Your task to perform on an android device: set the stopwatch Image 0: 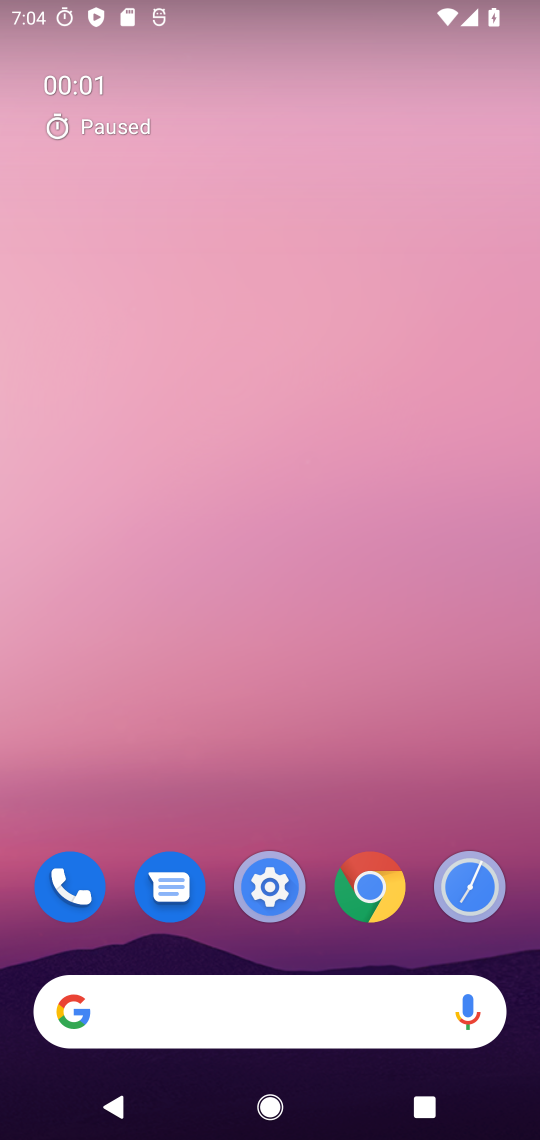
Step 0: drag from (354, 844) to (279, 299)
Your task to perform on an android device: set the stopwatch Image 1: 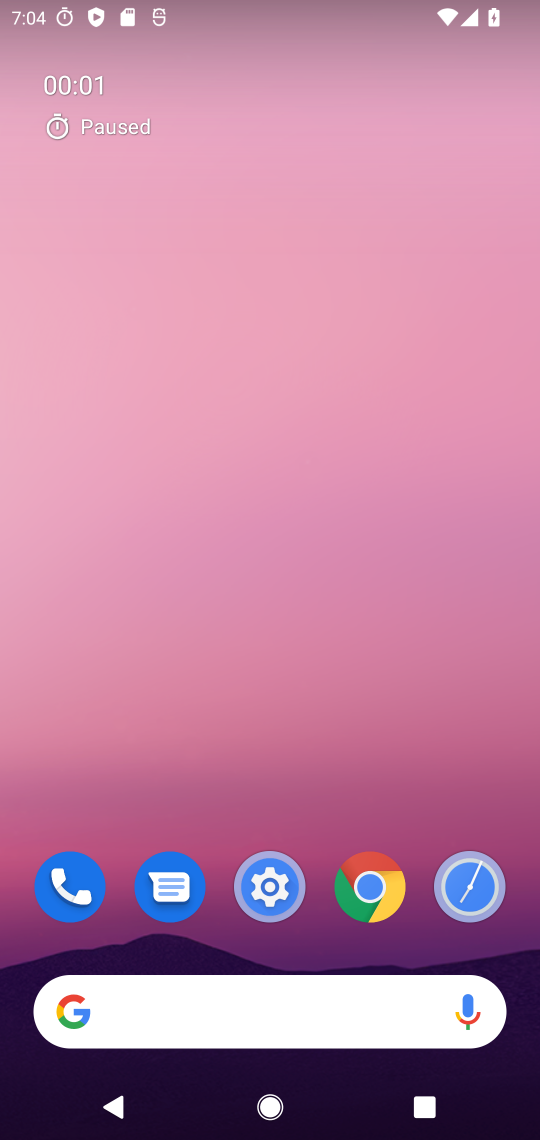
Step 1: drag from (304, 512) to (302, 422)
Your task to perform on an android device: set the stopwatch Image 2: 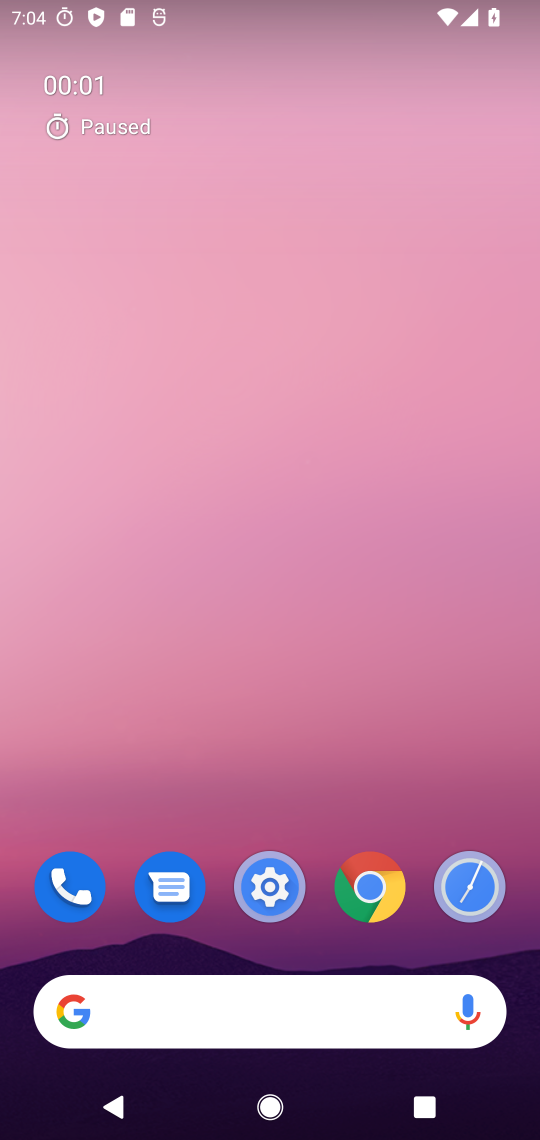
Step 2: drag from (334, 965) to (304, 458)
Your task to perform on an android device: set the stopwatch Image 3: 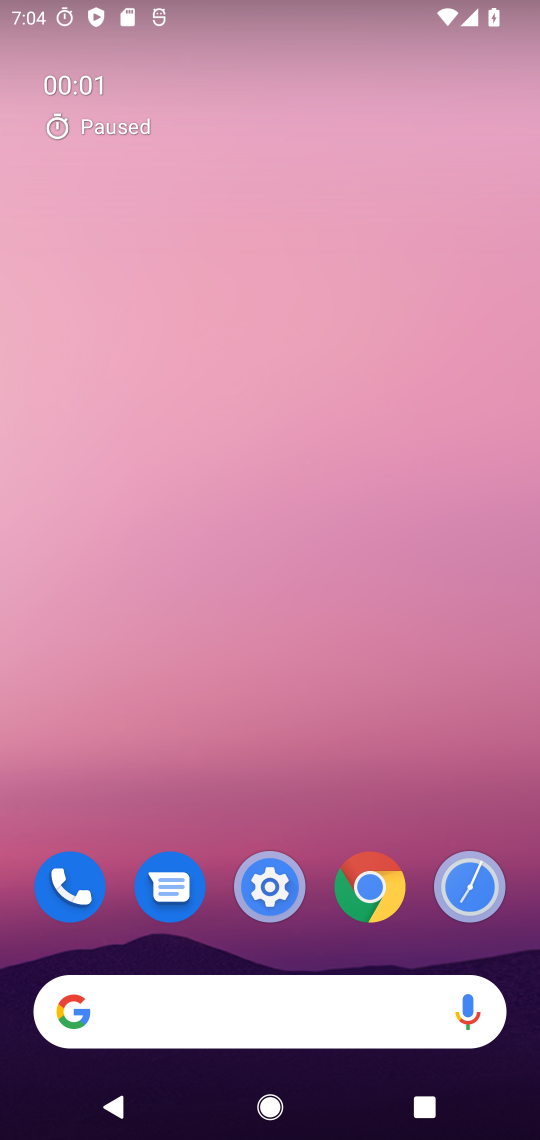
Step 3: drag from (340, 991) to (284, 311)
Your task to perform on an android device: set the stopwatch Image 4: 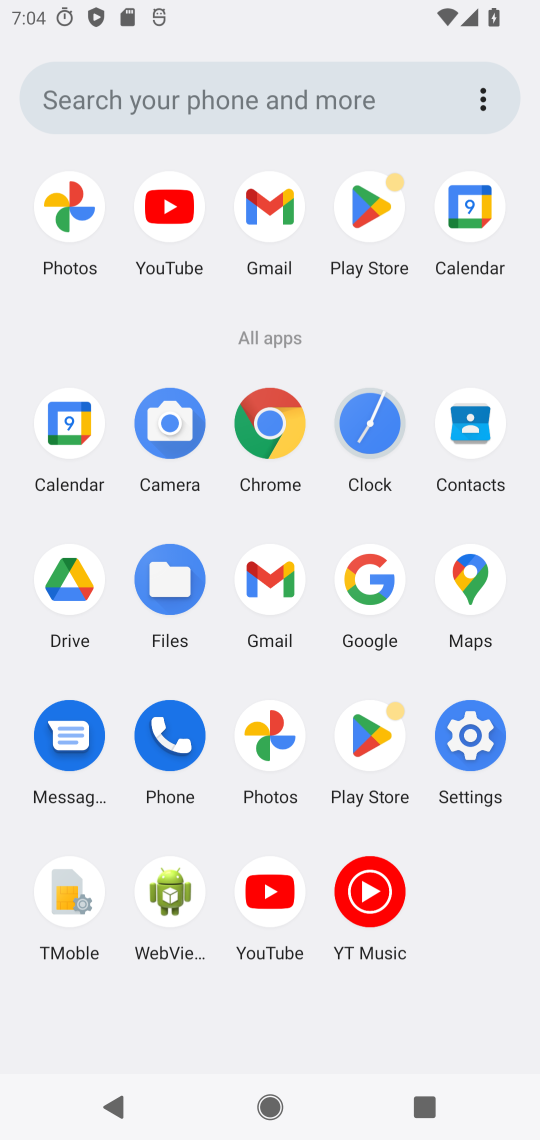
Step 4: drag from (261, 942) to (182, 339)
Your task to perform on an android device: set the stopwatch Image 5: 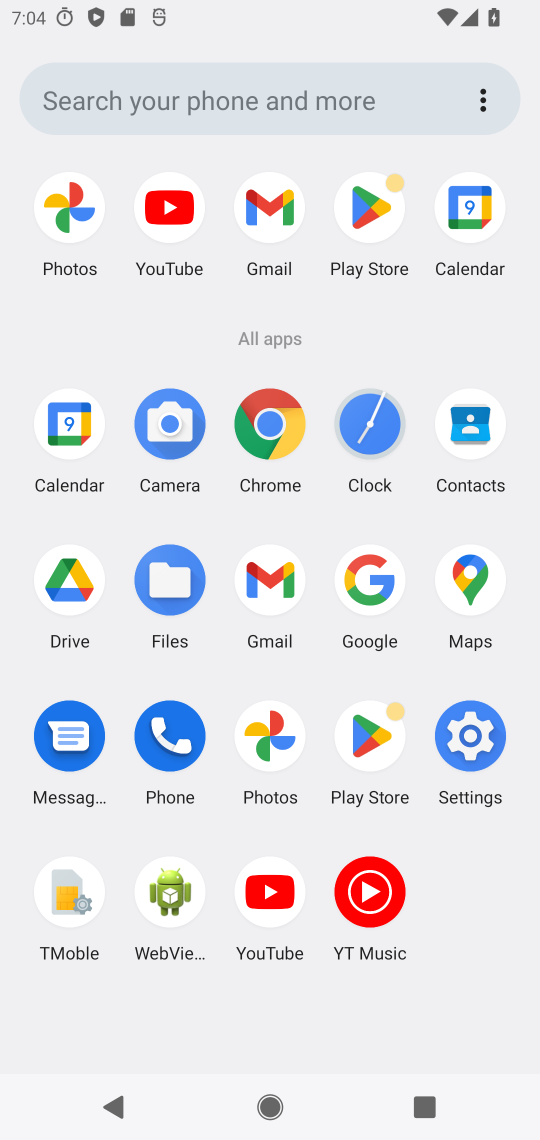
Step 5: click (358, 431)
Your task to perform on an android device: set the stopwatch Image 6: 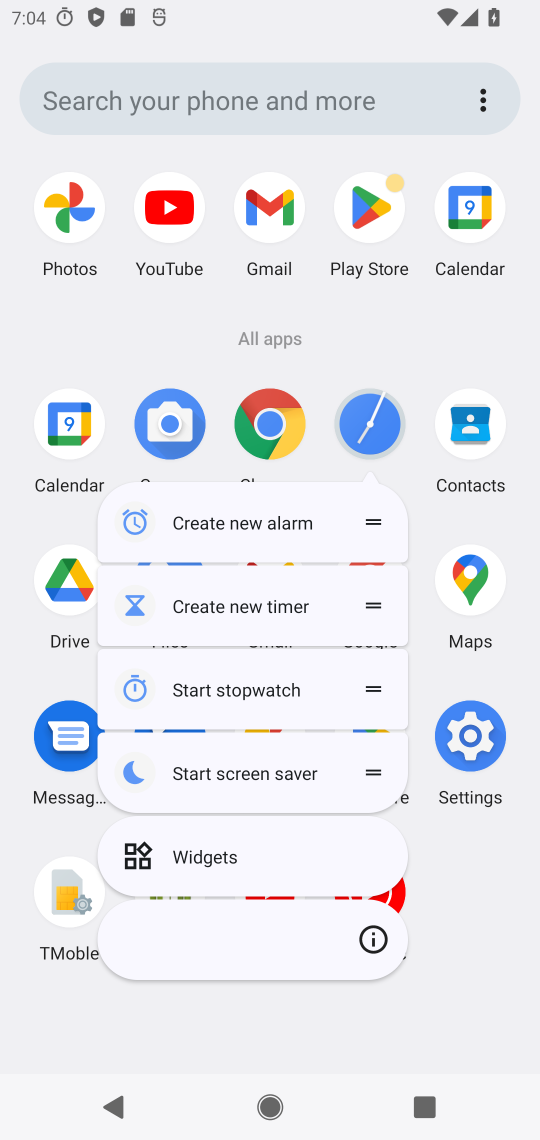
Step 6: click (359, 412)
Your task to perform on an android device: set the stopwatch Image 7: 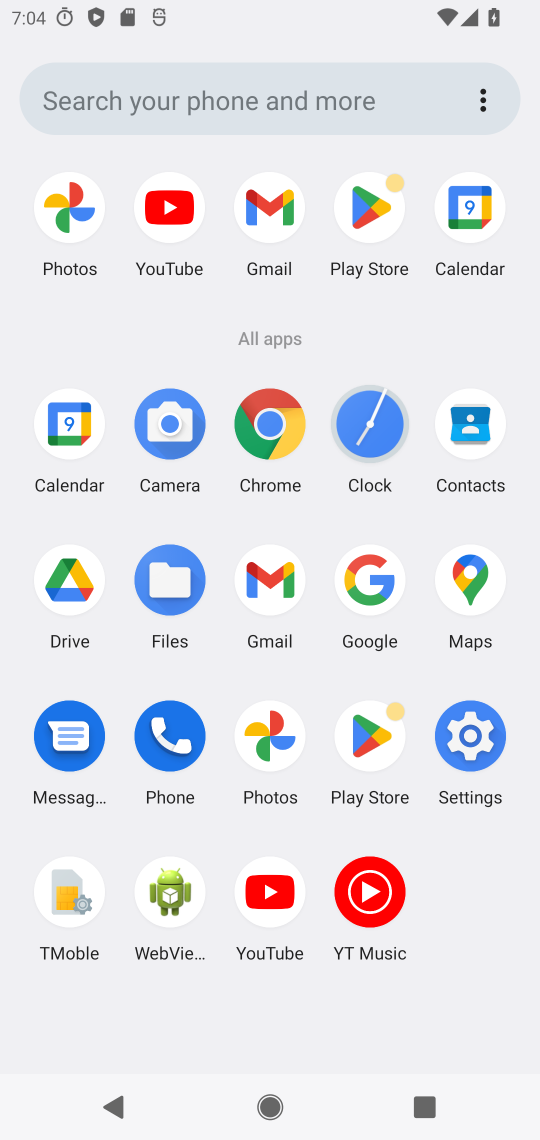
Step 7: click (357, 412)
Your task to perform on an android device: set the stopwatch Image 8: 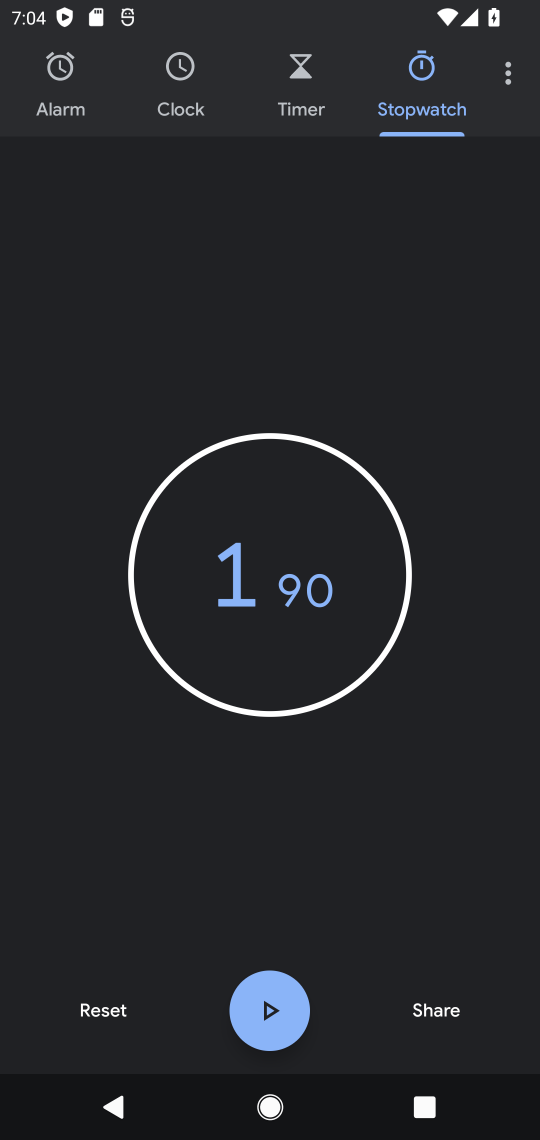
Step 8: click (349, 419)
Your task to perform on an android device: set the stopwatch Image 9: 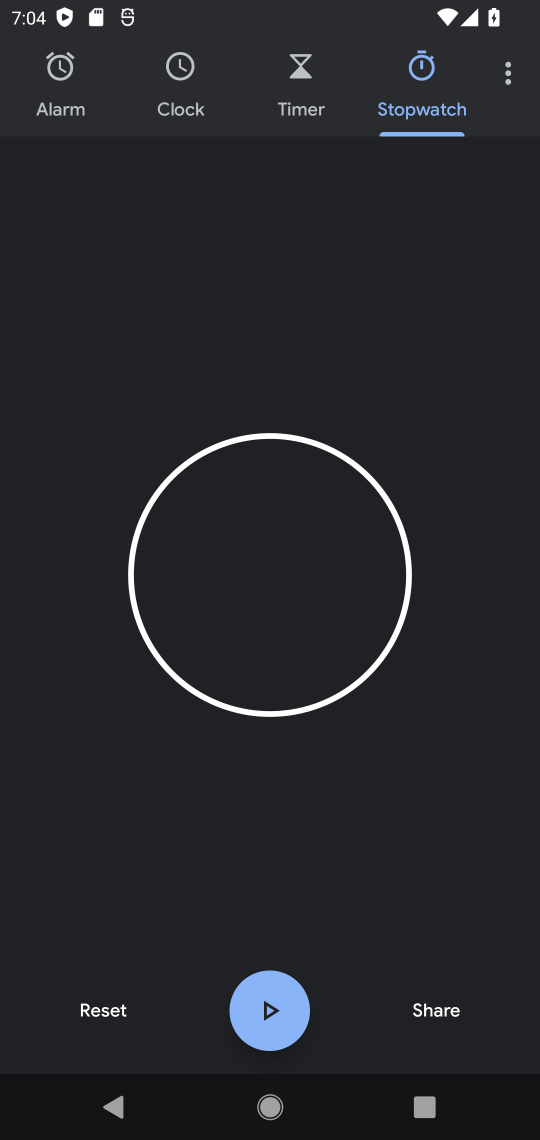
Step 9: click (431, 103)
Your task to perform on an android device: set the stopwatch Image 10: 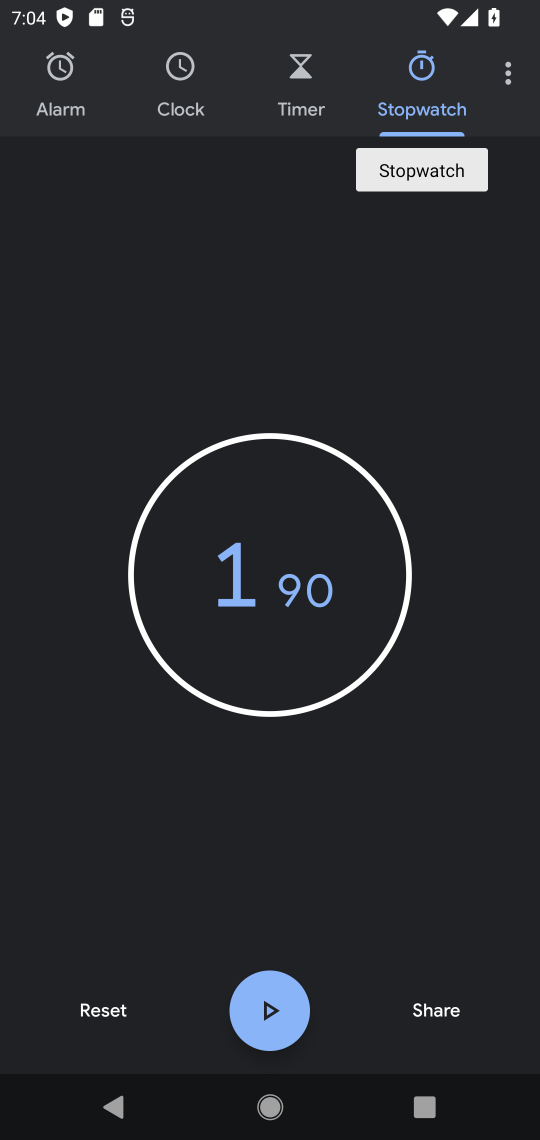
Step 10: click (282, 997)
Your task to perform on an android device: set the stopwatch Image 11: 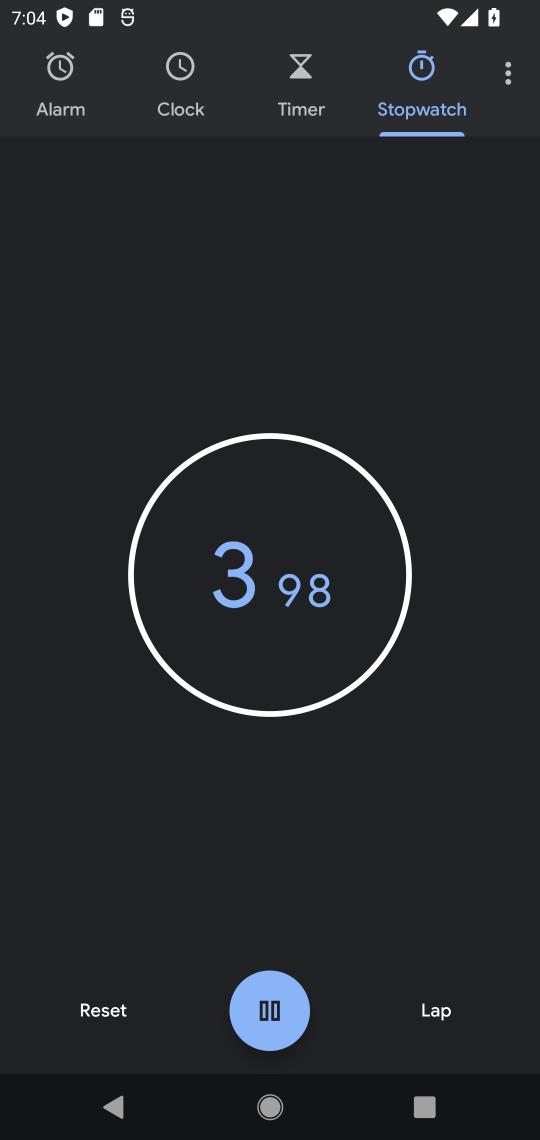
Step 11: click (270, 1021)
Your task to perform on an android device: set the stopwatch Image 12: 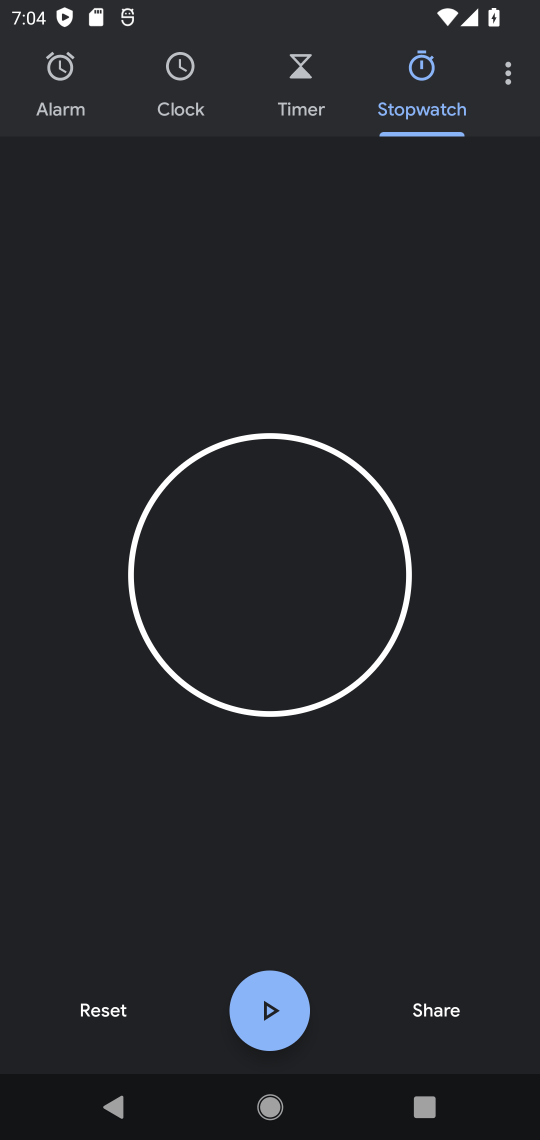
Step 12: click (269, 1012)
Your task to perform on an android device: set the stopwatch Image 13: 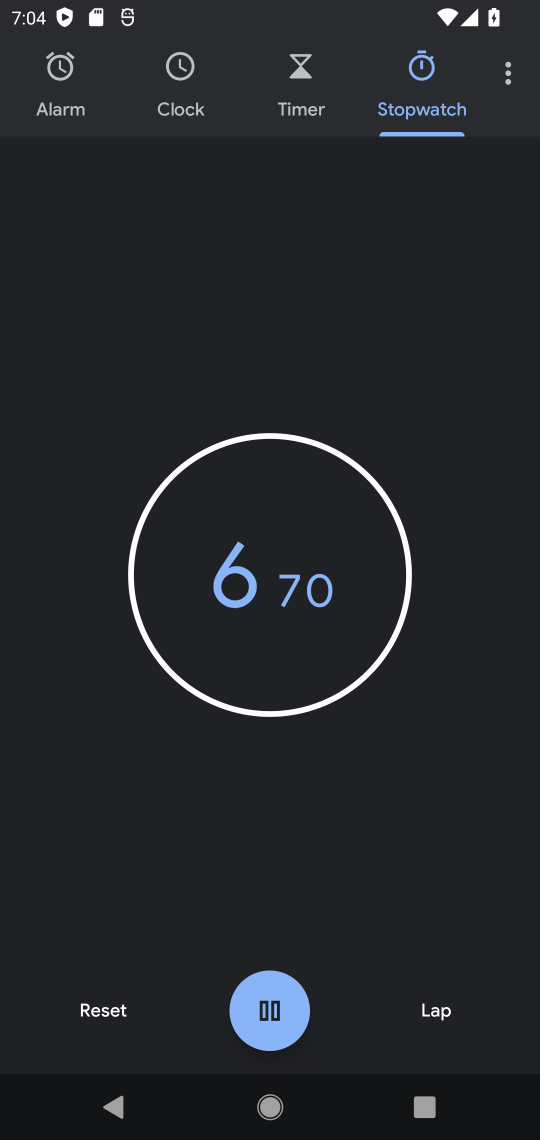
Step 13: click (272, 1011)
Your task to perform on an android device: set the stopwatch Image 14: 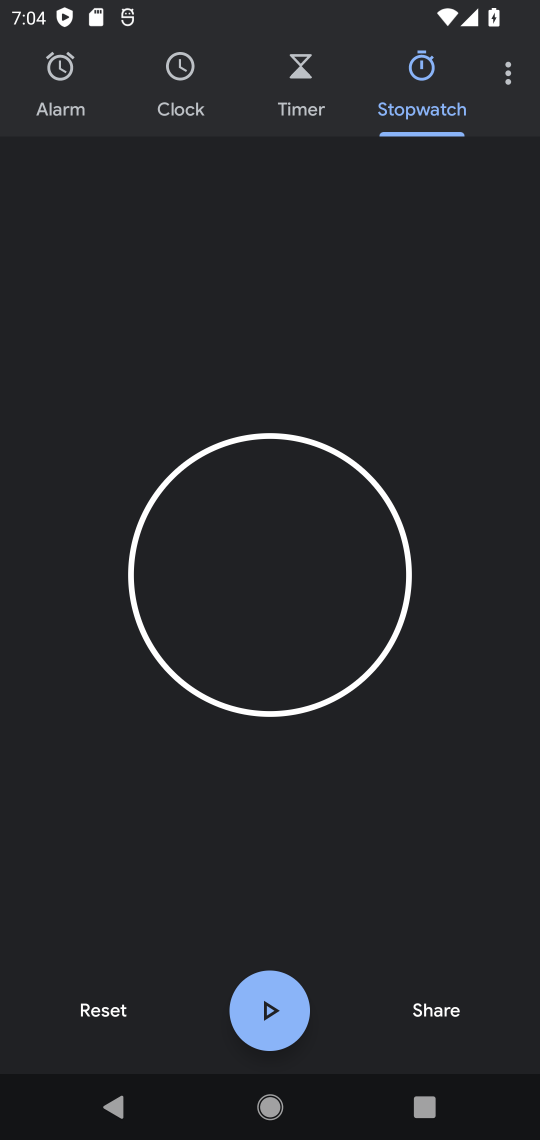
Step 14: task complete